Your task to perform on an android device: open app "Viber Messenger" Image 0: 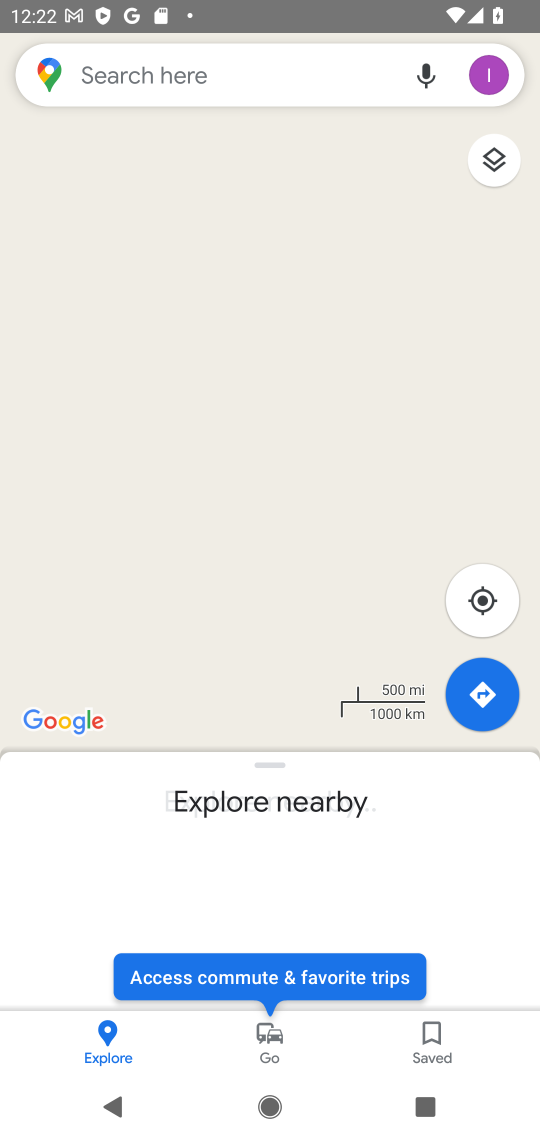
Step 0: press home button
Your task to perform on an android device: open app "Viber Messenger" Image 1: 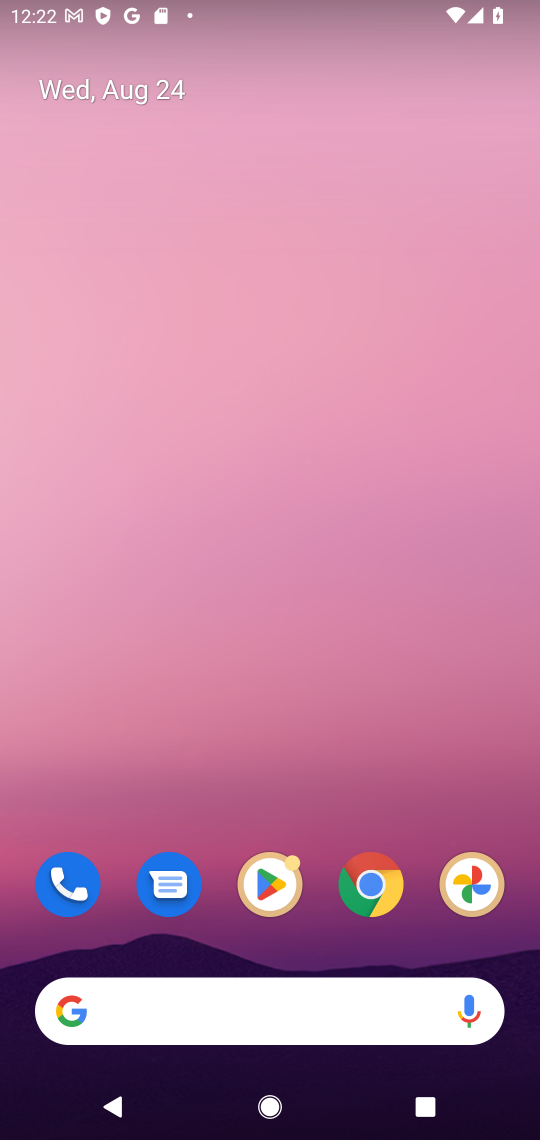
Step 1: drag from (245, 1028) to (395, 102)
Your task to perform on an android device: open app "Viber Messenger" Image 2: 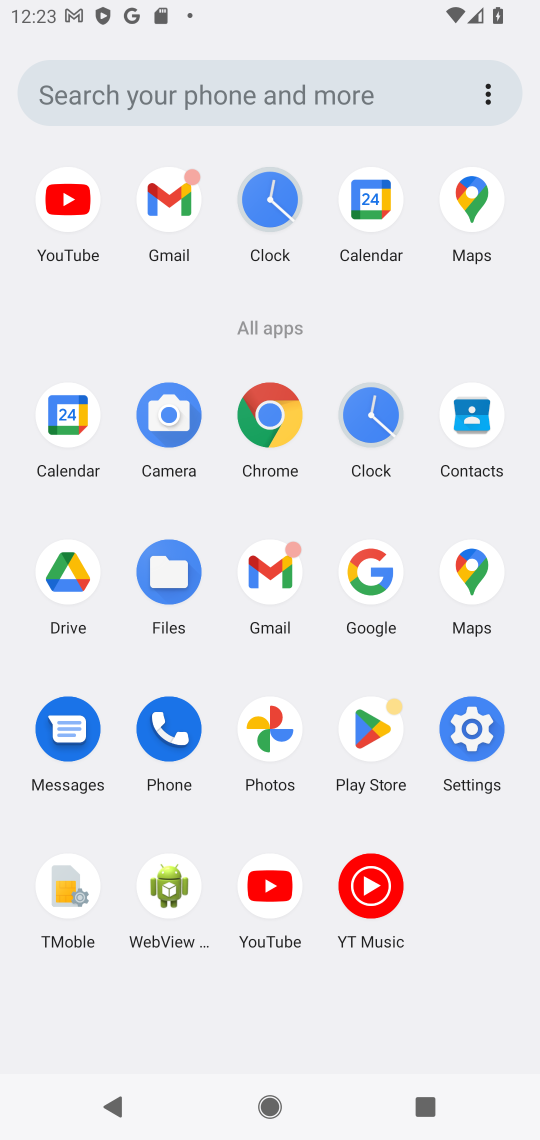
Step 2: click (371, 735)
Your task to perform on an android device: open app "Viber Messenger" Image 3: 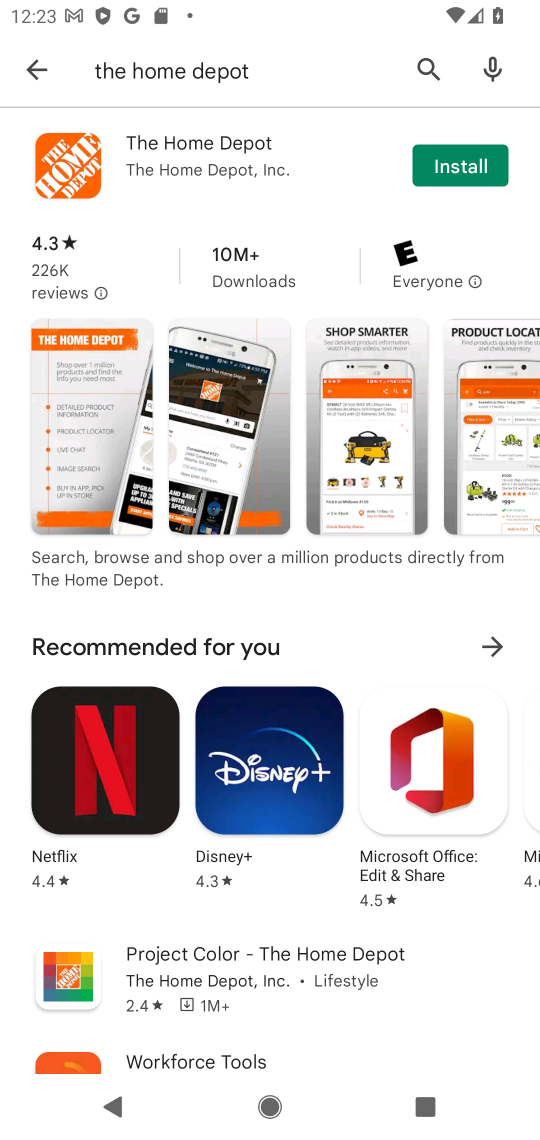
Step 3: press back button
Your task to perform on an android device: open app "Viber Messenger" Image 4: 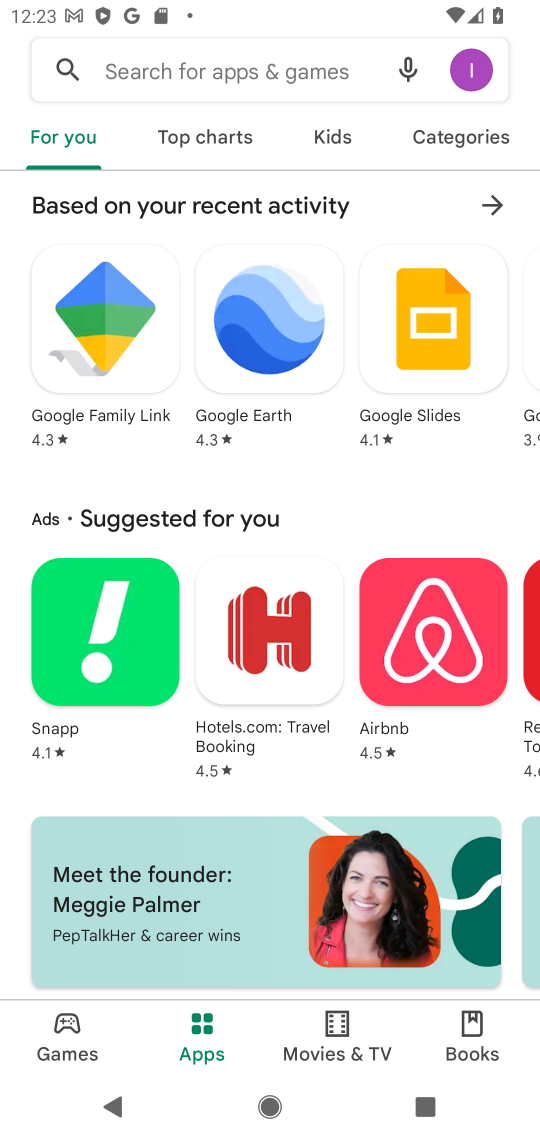
Step 4: click (223, 77)
Your task to perform on an android device: open app "Viber Messenger" Image 5: 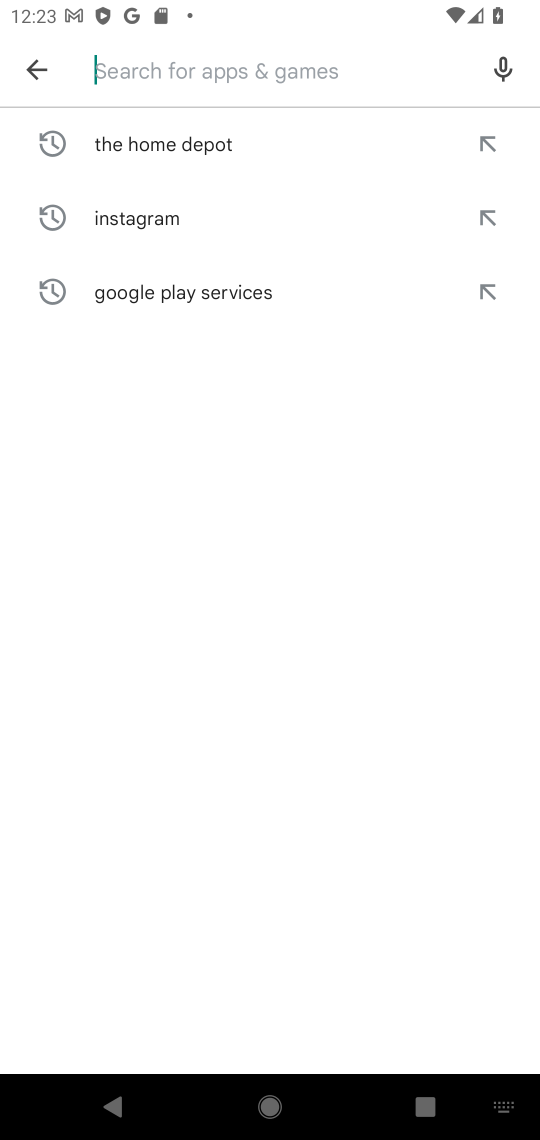
Step 5: type "Viber Messenger"
Your task to perform on an android device: open app "Viber Messenger" Image 6: 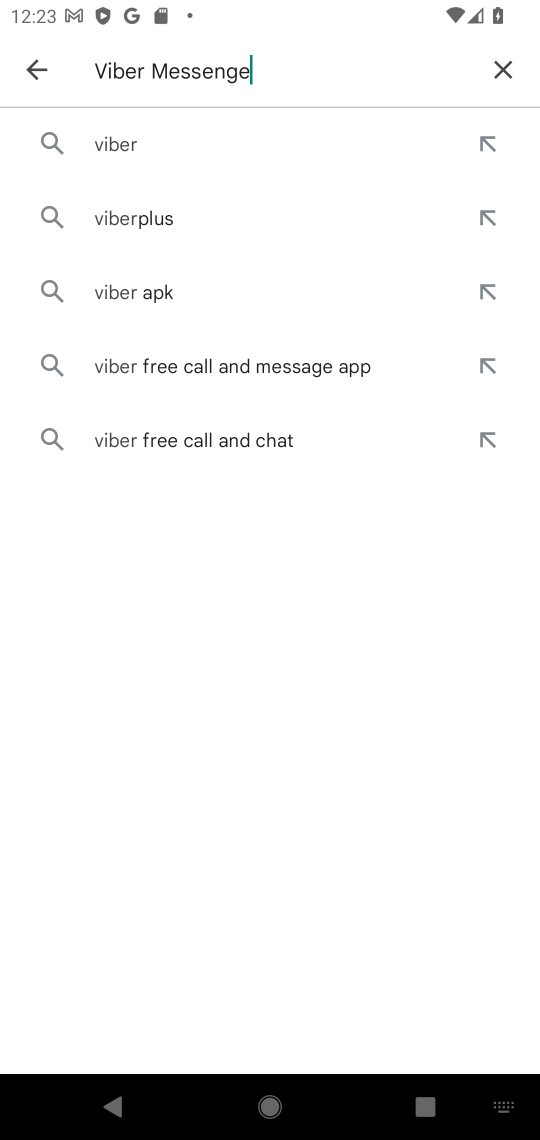
Step 6: type ""
Your task to perform on an android device: open app "Viber Messenger" Image 7: 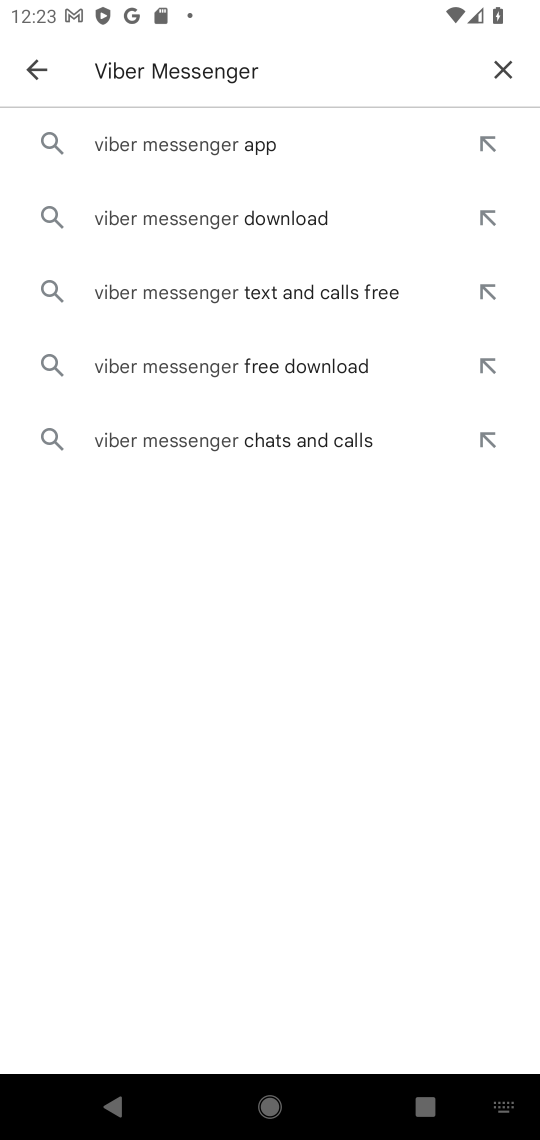
Step 7: click (181, 151)
Your task to perform on an android device: open app "Viber Messenger" Image 8: 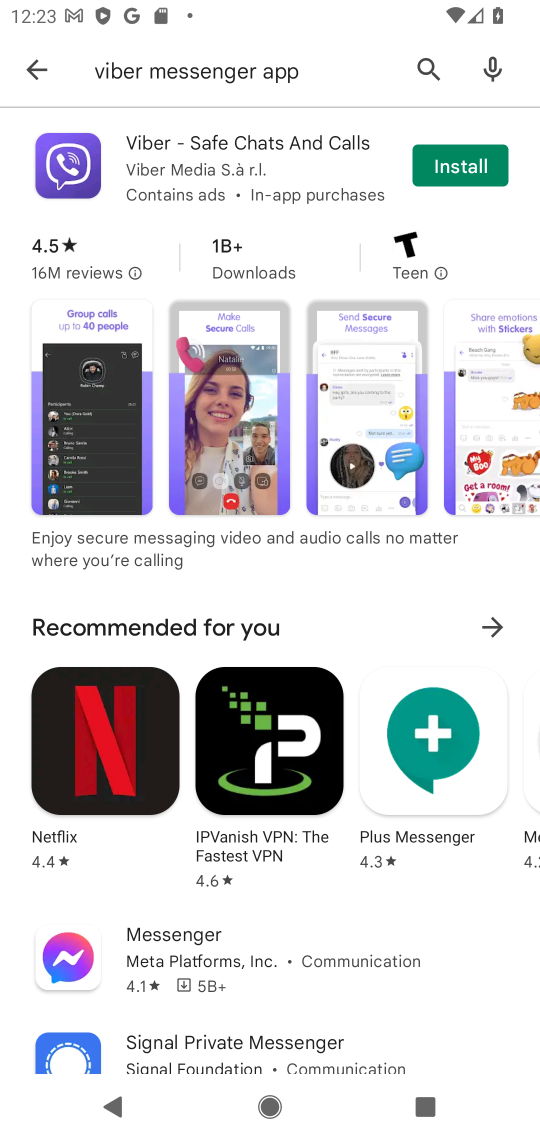
Step 8: task complete